Your task to perform on an android device: Go to Reddit.com Image 0: 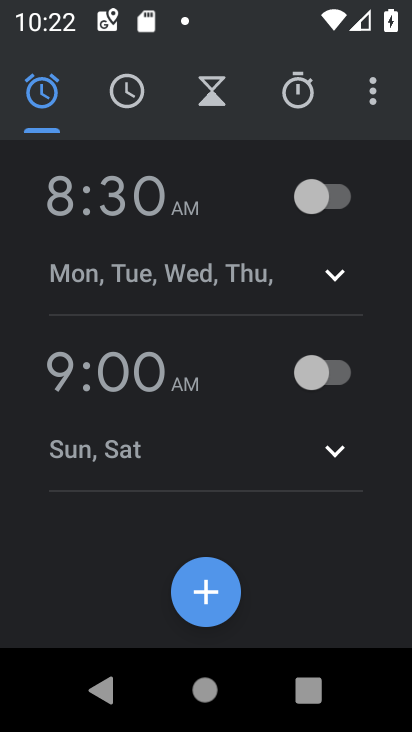
Step 0: press back button
Your task to perform on an android device: Go to Reddit.com Image 1: 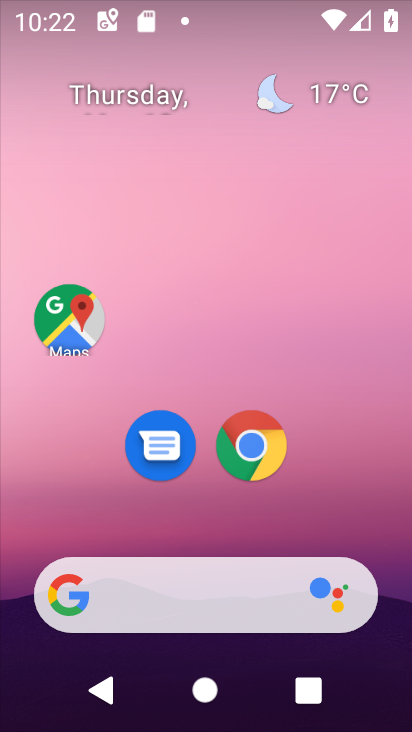
Step 1: click (259, 451)
Your task to perform on an android device: Go to Reddit.com Image 2: 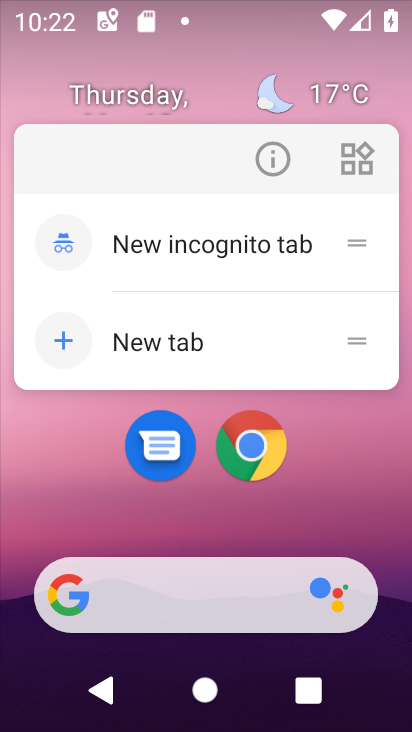
Step 2: click (250, 440)
Your task to perform on an android device: Go to Reddit.com Image 3: 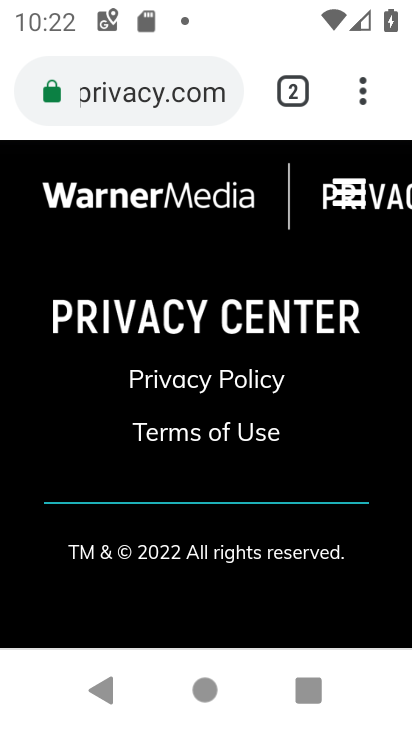
Step 3: click (150, 96)
Your task to perform on an android device: Go to Reddit.com Image 4: 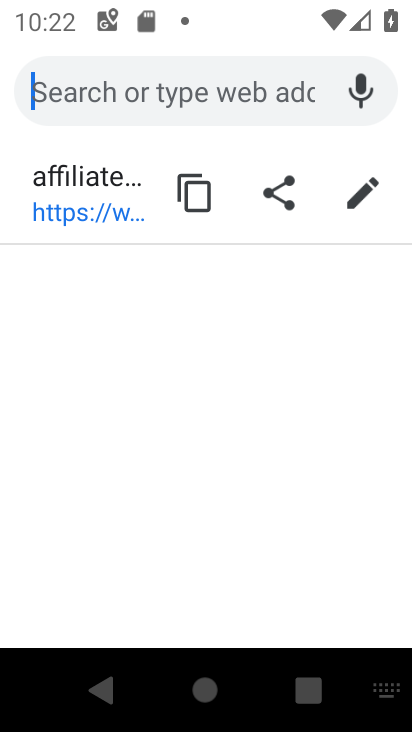
Step 4: type "Reddit.com"
Your task to perform on an android device: Go to Reddit.com Image 5: 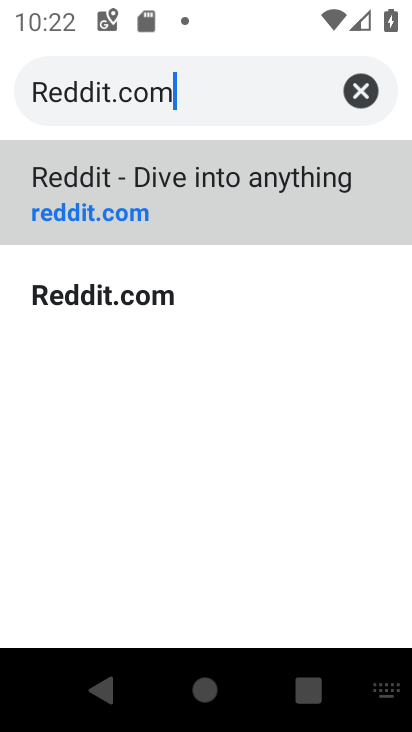
Step 5: click (85, 299)
Your task to perform on an android device: Go to Reddit.com Image 6: 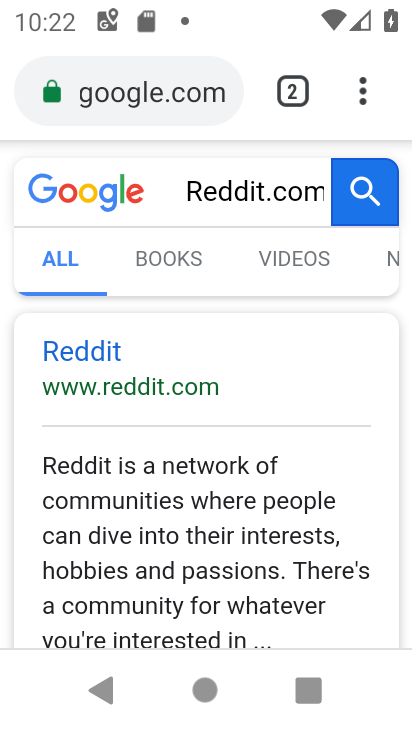
Step 6: click (58, 346)
Your task to perform on an android device: Go to Reddit.com Image 7: 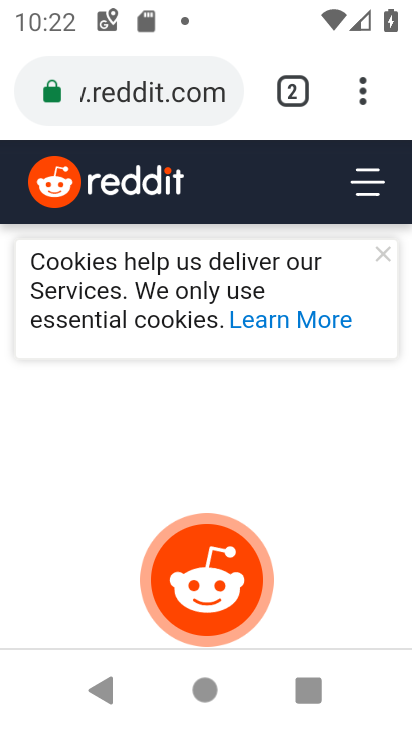
Step 7: task complete